Your task to perform on an android device: open a bookmark in the chrome app Image 0: 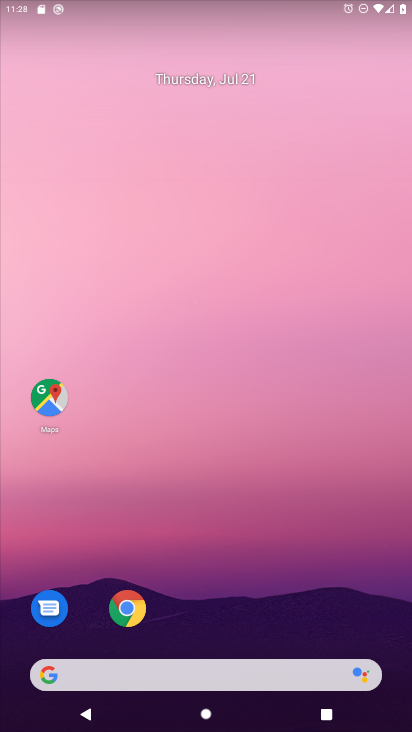
Step 0: drag from (370, 627) to (141, 72)
Your task to perform on an android device: open a bookmark in the chrome app Image 1: 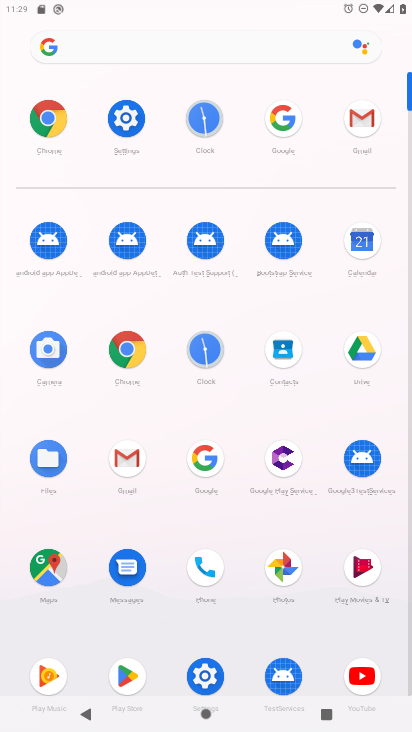
Step 1: click (126, 352)
Your task to perform on an android device: open a bookmark in the chrome app Image 2: 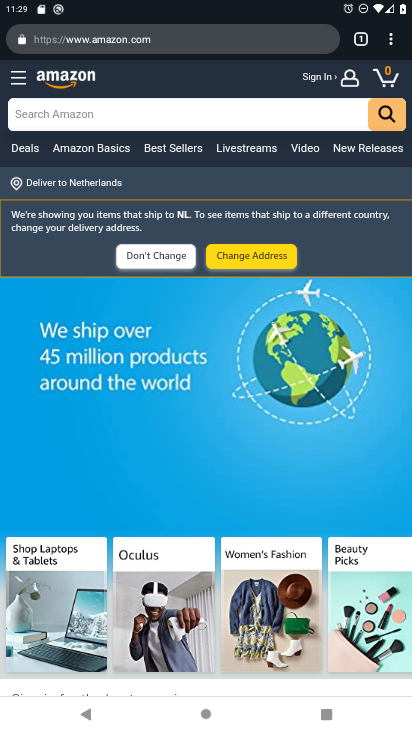
Step 2: click (392, 34)
Your task to perform on an android device: open a bookmark in the chrome app Image 3: 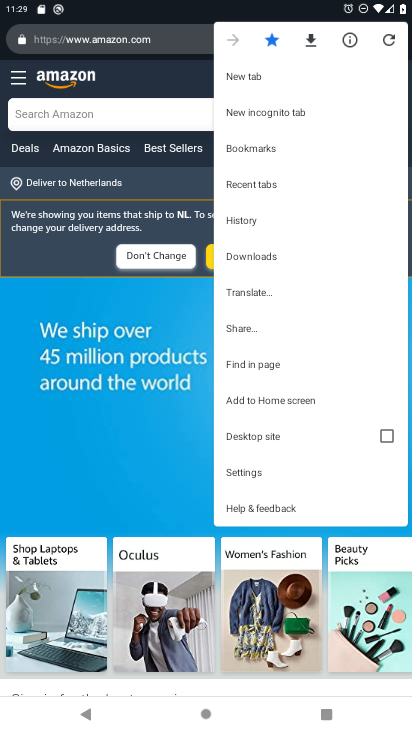
Step 3: click (275, 154)
Your task to perform on an android device: open a bookmark in the chrome app Image 4: 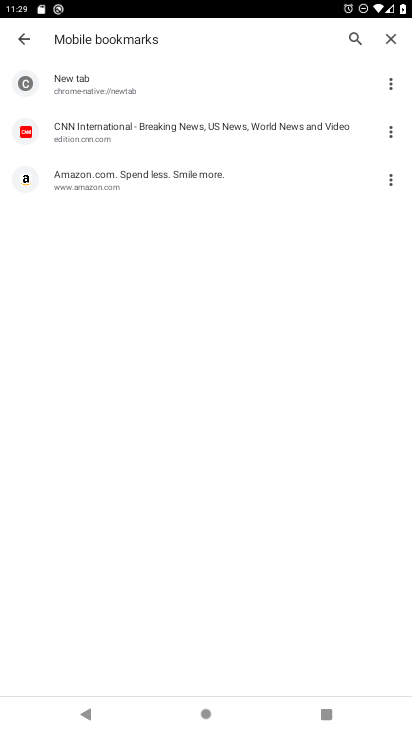
Step 4: task complete